Your task to perform on an android device: open wifi settings Image 0: 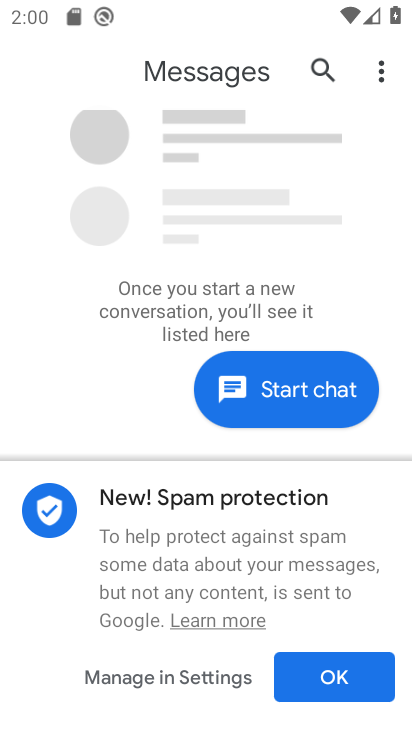
Step 0: press home button
Your task to perform on an android device: open wifi settings Image 1: 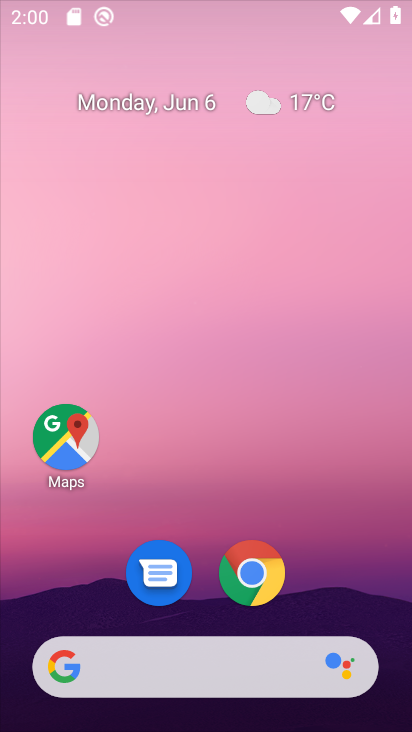
Step 1: drag from (401, 646) to (317, 163)
Your task to perform on an android device: open wifi settings Image 2: 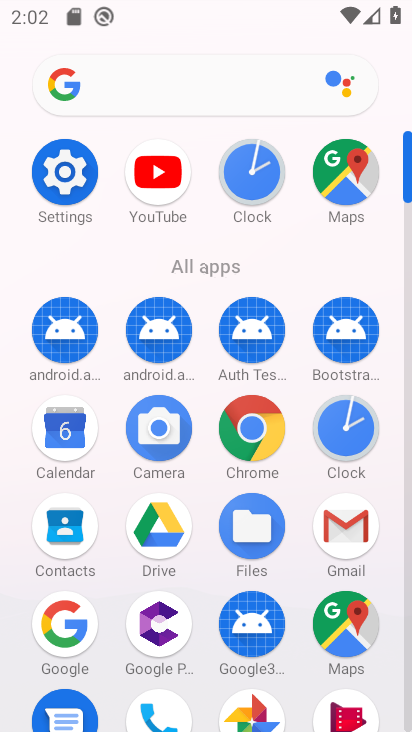
Step 2: click (70, 159)
Your task to perform on an android device: open wifi settings Image 3: 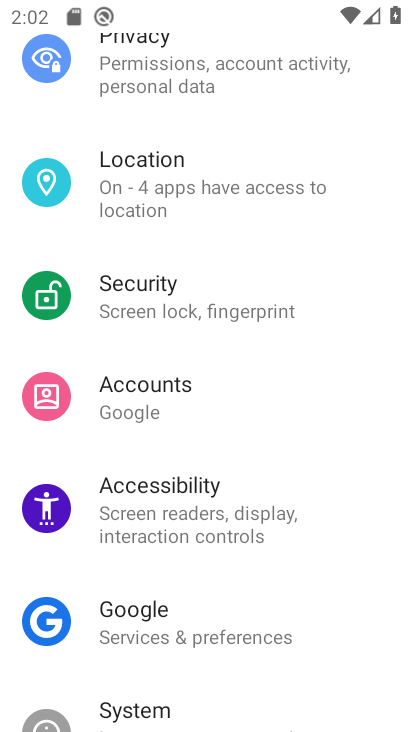
Step 3: drag from (129, 109) to (163, 721)
Your task to perform on an android device: open wifi settings Image 4: 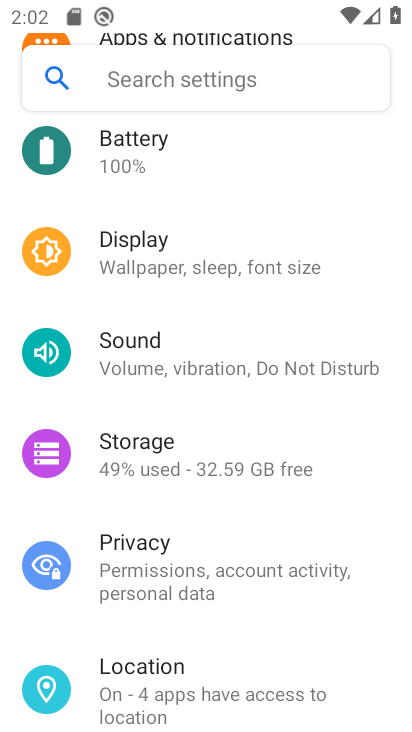
Step 4: drag from (106, 214) to (212, 685)
Your task to perform on an android device: open wifi settings Image 5: 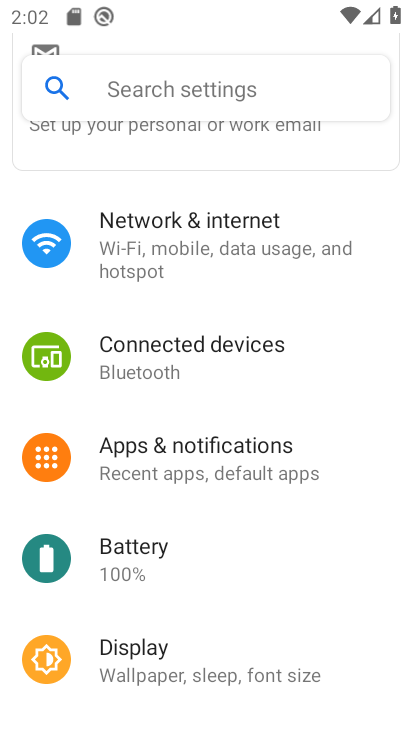
Step 5: click (186, 256)
Your task to perform on an android device: open wifi settings Image 6: 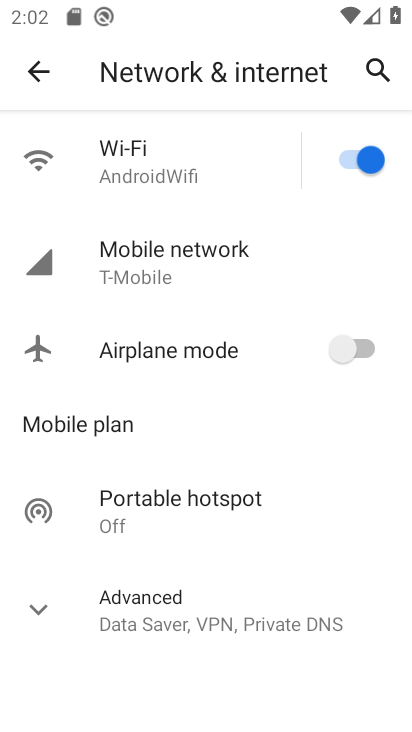
Step 6: click (143, 163)
Your task to perform on an android device: open wifi settings Image 7: 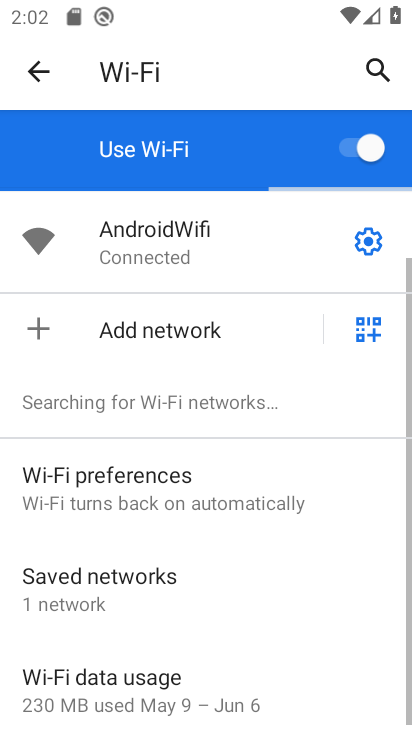
Step 7: task complete